Your task to perform on an android device: Go to Amazon Image 0: 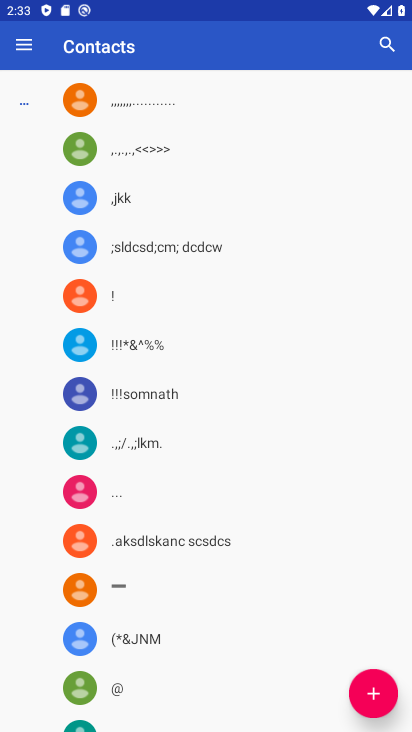
Step 0: press home button
Your task to perform on an android device: Go to Amazon Image 1: 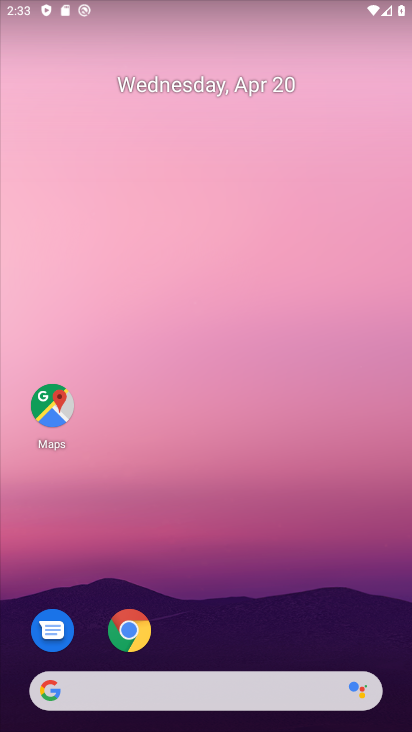
Step 1: click (155, 689)
Your task to perform on an android device: Go to Amazon Image 2: 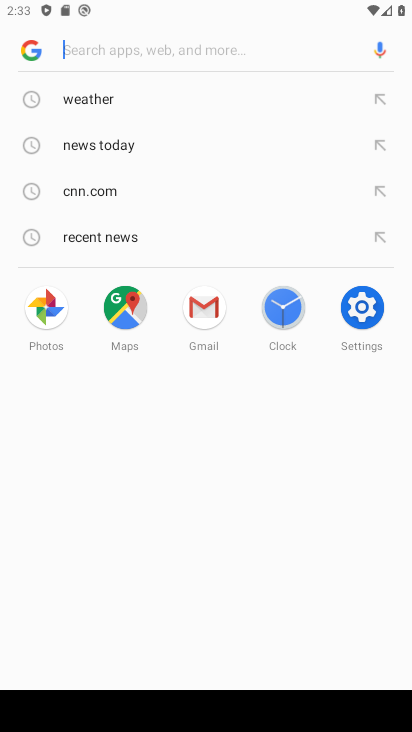
Step 2: type "amazon.com"
Your task to perform on an android device: Go to Amazon Image 3: 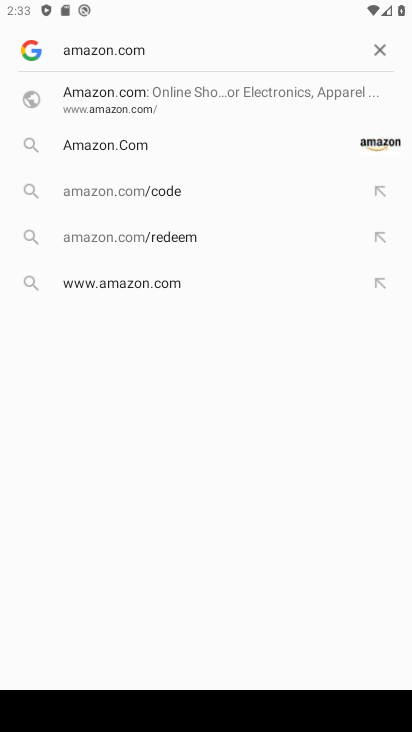
Step 3: click (170, 100)
Your task to perform on an android device: Go to Amazon Image 4: 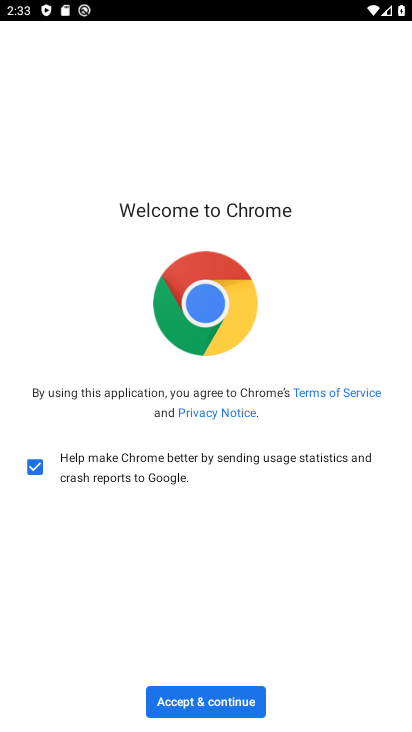
Step 4: click (204, 702)
Your task to perform on an android device: Go to Amazon Image 5: 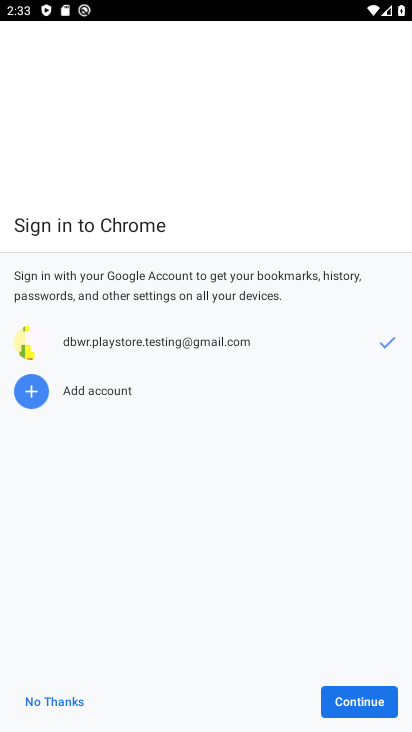
Step 5: click (384, 697)
Your task to perform on an android device: Go to Amazon Image 6: 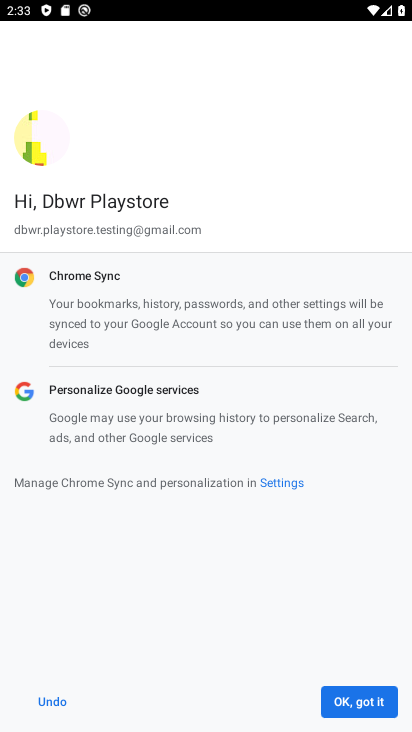
Step 6: click (384, 697)
Your task to perform on an android device: Go to Amazon Image 7: 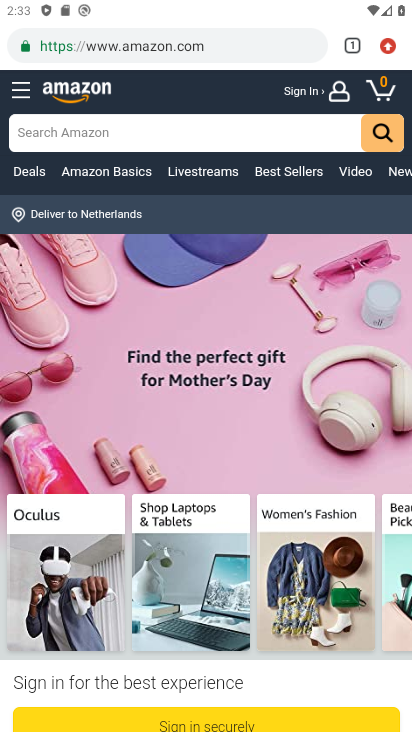
Step 7: task complete